Your task to perform on an android device: Open calendar and show me the fourth week of next month Image 0: 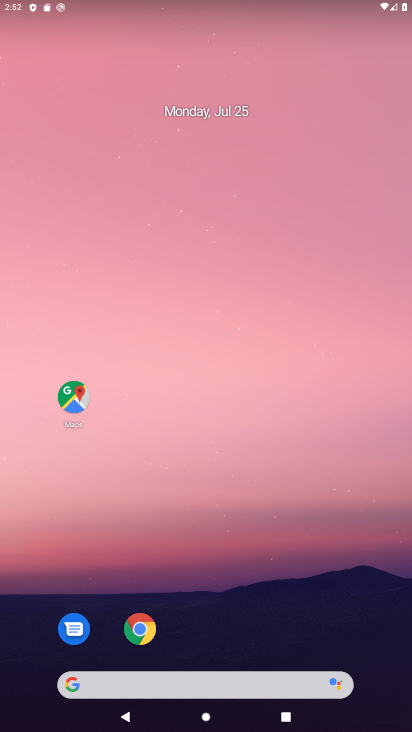
Step 0: drag from (287, 629) to (251, 10)
Your task to perform on an android device: Open calendar and show me the fourth week of next month Image 1: 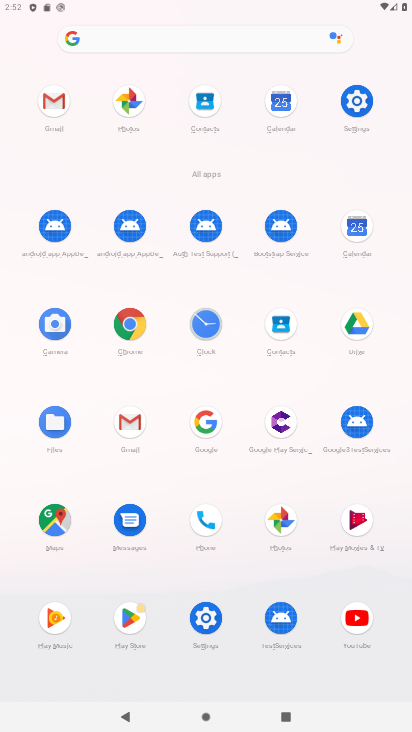
Step 1: click (281, 113)
Your task to perform on an android device: Open calendar and show me the fourth week of next month Image 2: 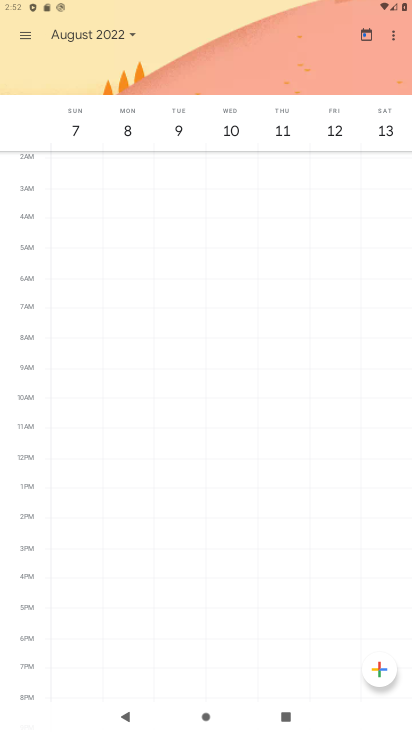
Step 2: task complete